Your task to perform on an android device: turn notification dots on Image 0: 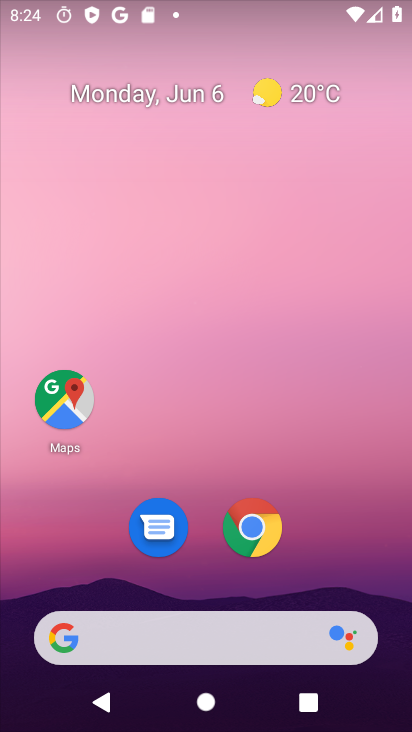
Step 0: drag from (240, 639) to (195, 87)
Your task to perform on an android device: turn notification dots on Image 1: 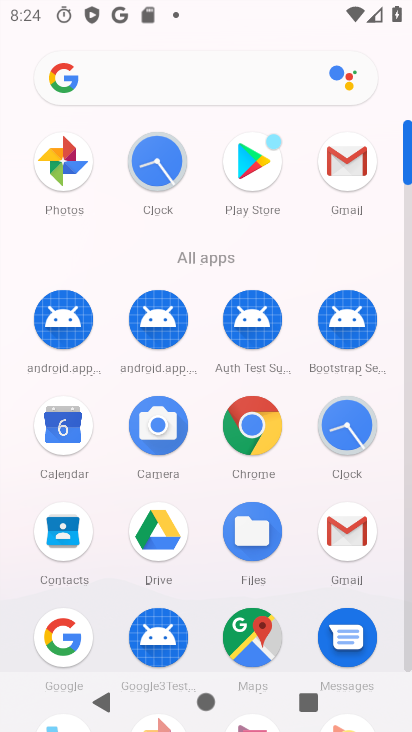
Step 1: drag from (205, 569) to (205, 214)
Your task to perform on an android device: turn notification dots on Image 2: 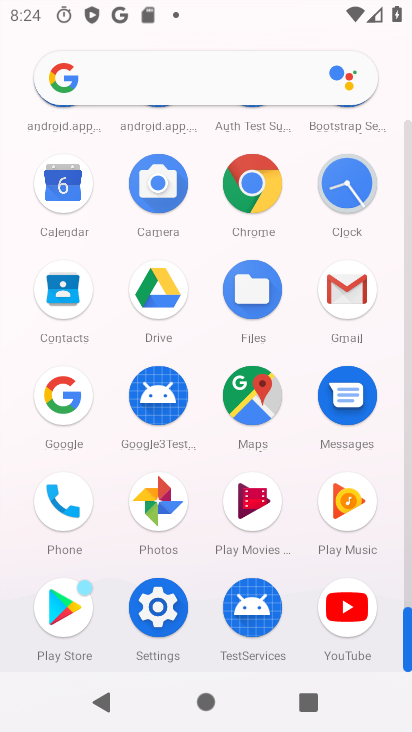
Step 2: click (156, 610)
Your task to perform on an android device: turn notification dots on Image 3: 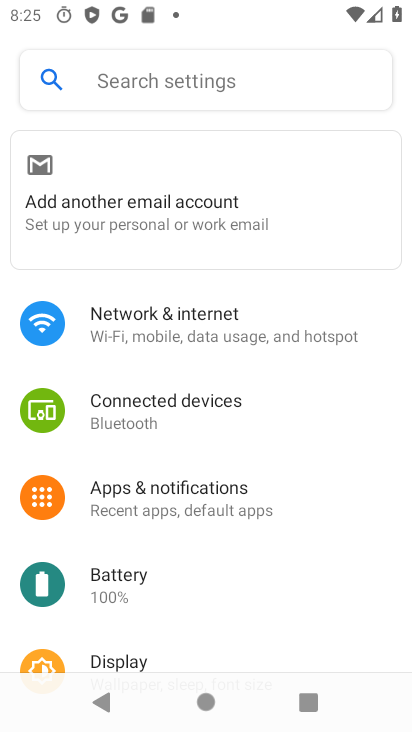
Step 3: click (157, 498)
Your task to perform on an android device: turn notification dots on Image 4: 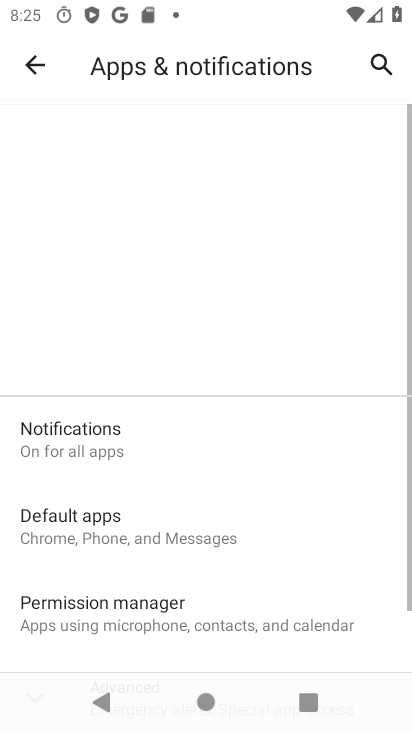
Step 4: click (70, 435)
Your task to perform on an android device: turn notification dots on Image 5: 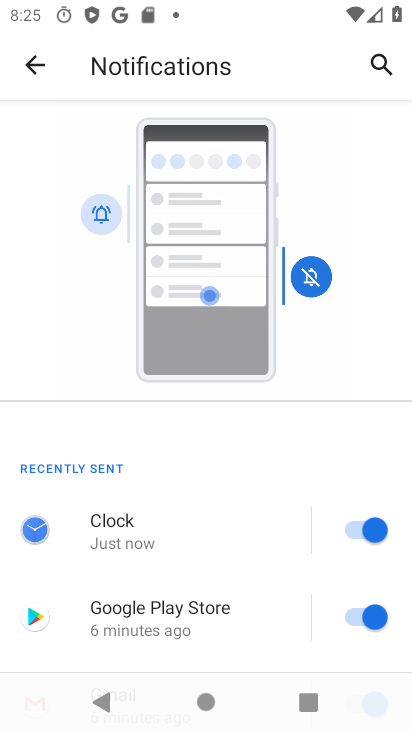
Step 5: drag from (217, 664) to (199, 345)
Your task to perform on an android device: turn notification dots on Image 6: 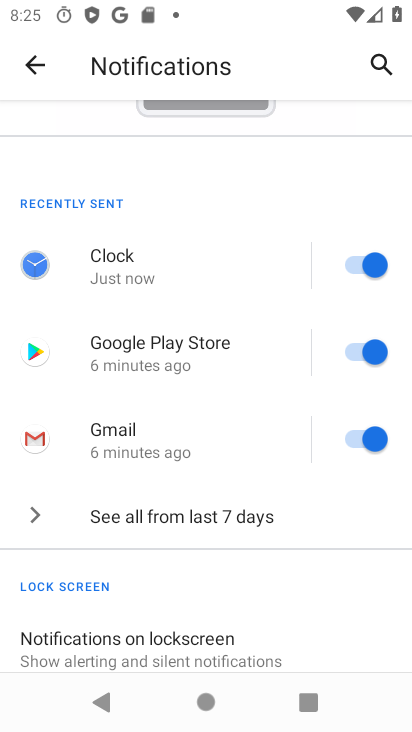
Step 6: drag from (208, 620) to (191, 291)
Your task to perform on an android device: turn notification dots on Image 7: 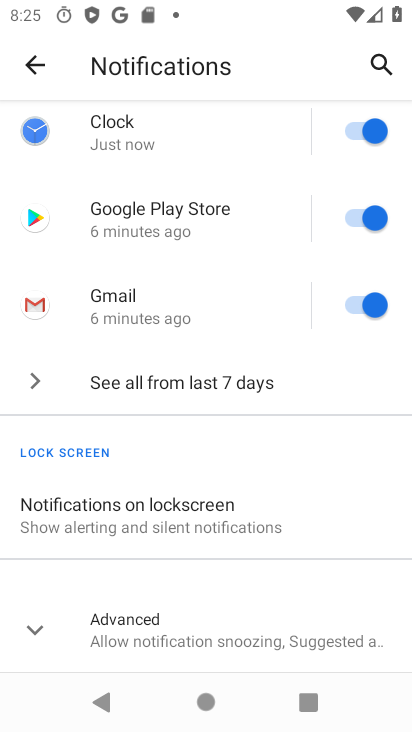
Step 7: click (145, 630)
Your task to perform on an android device: turn notification dots on Image 8: 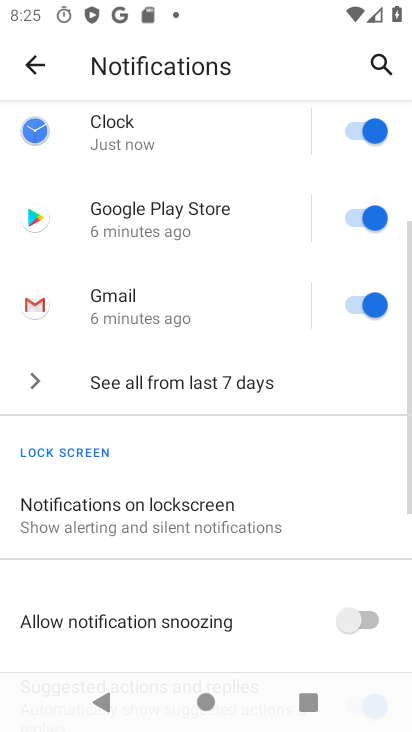
Step 8: task complete